Your task to perform on an android device: Search for sushi restaurants on Maps Image 0: 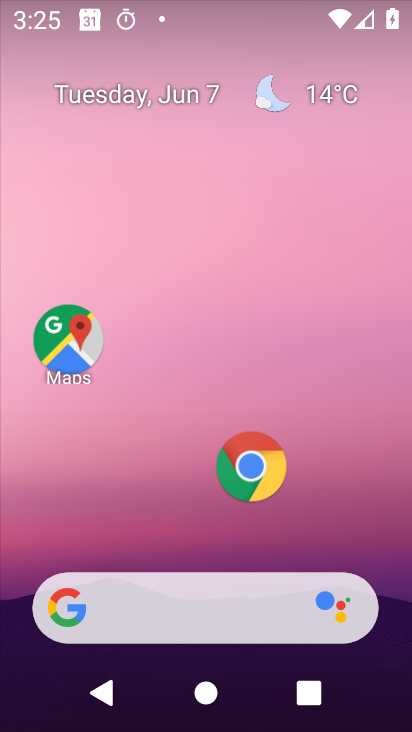
Step 0: click (54, 343)
Your task to perform on an android device: Search for sushi restaurants on Maps Image 1: 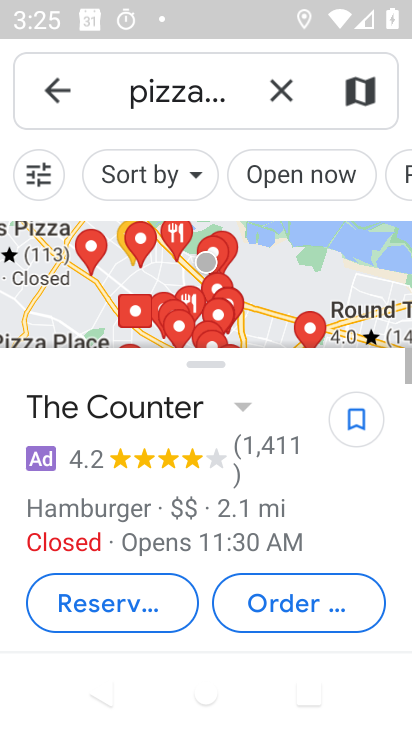
Step 1: click (275, 96)
Your task to perform on an android device: Search for sushi restaurants on Maps Image 2: 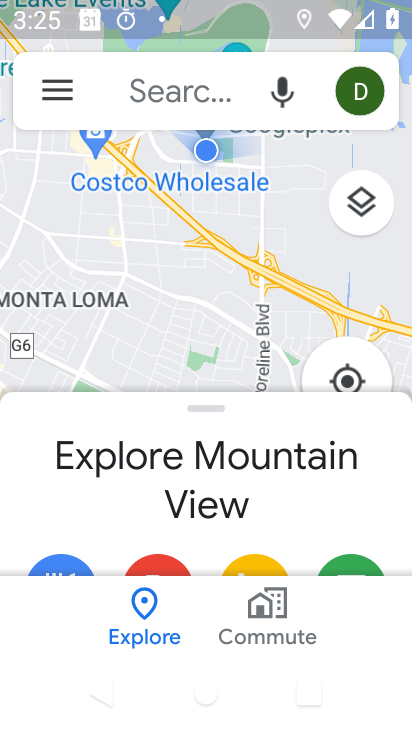
Step 2: click (150, 102)
Your task to perform on an android device: Search for sushi restaurants on Maps Image 3: 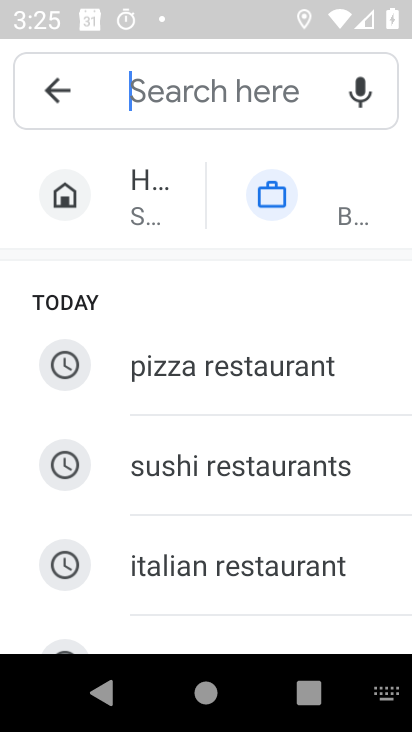
Step 3: click (249, 479)
Your task to perform on an android device: Search for sushi restaurants on Maps Image 4: 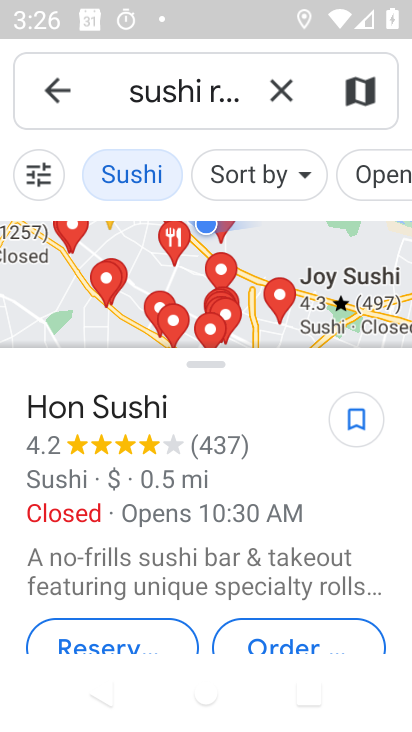
Step 4: task complete